Your task to perform on an android device: What's on my calendar tomorrow? Image 0: 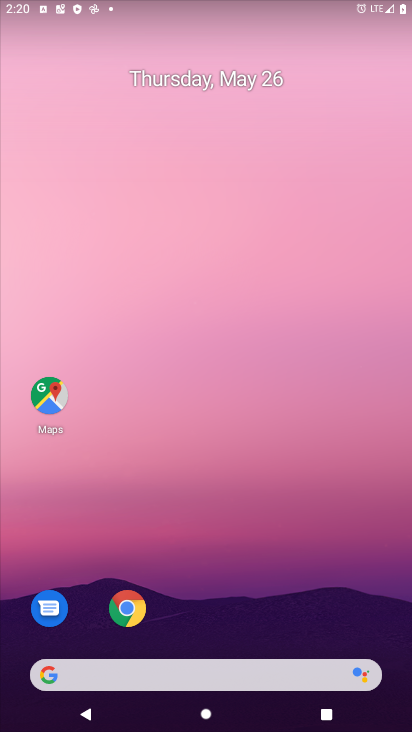
Step 0: click (311, 586)
Your task to perform on an android device: What's on my calendar tomorrow? Image 1: 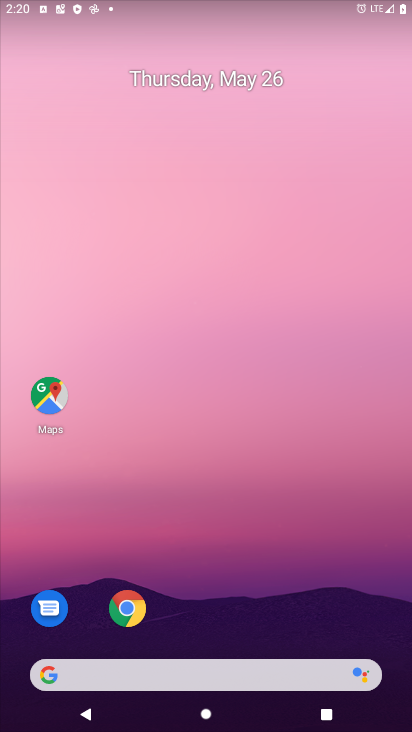
Step 1: drag from (311, 586) to (271, 304)
Your task to perform on an android device: What's on my calendar tomorrow? Image 2: 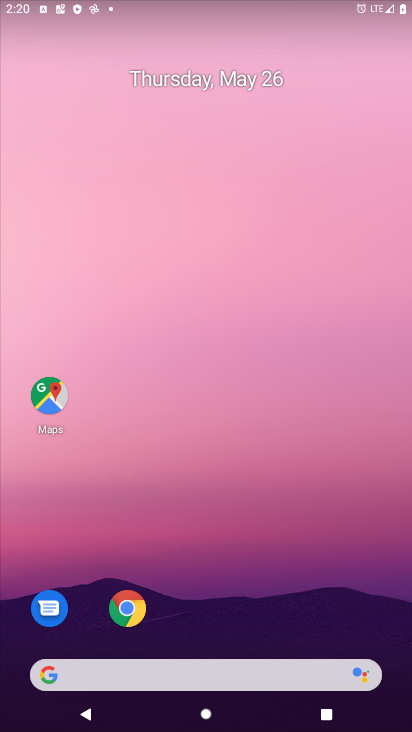
Step 2: drag from (332, 634) to (334, 160)
Your task to perform on an android device: What's on my calendar tomorrow? Image 3: 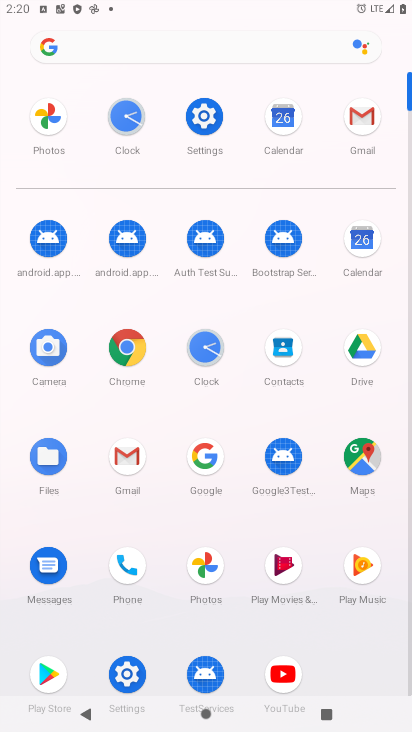
Step 3: click (363, 237)
Your task to perform on an android device: What's on my calendar tomorrow? Image 4: 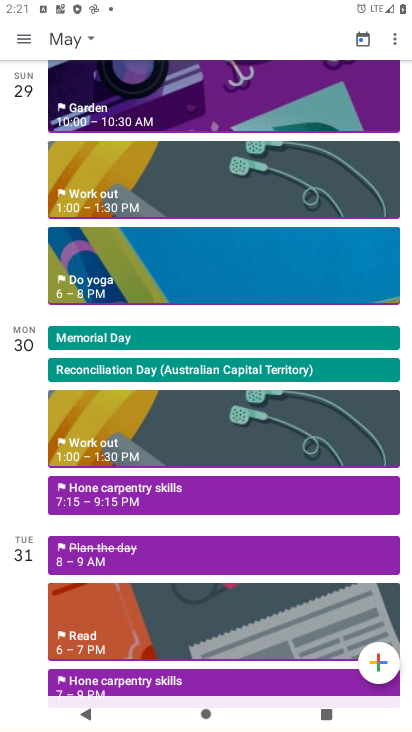
Step 4: click (26, 43)
Your task to perform on an android device: What's on my calendar tomorrow? Image 5: 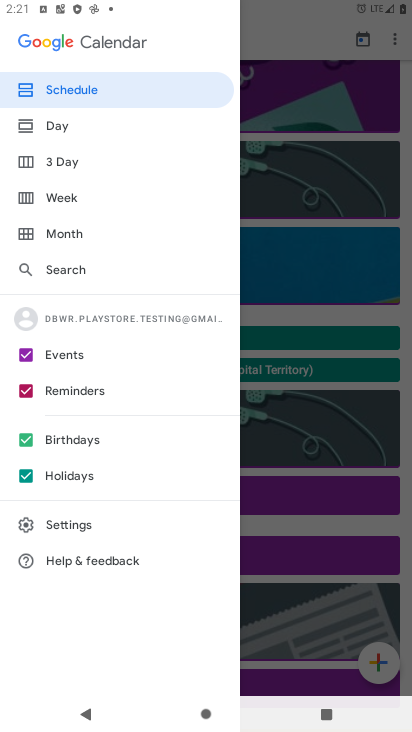
Step 5: click (64, 123)
Your task to perform on an android device: What's on my calendar tomorrow? Image 6: 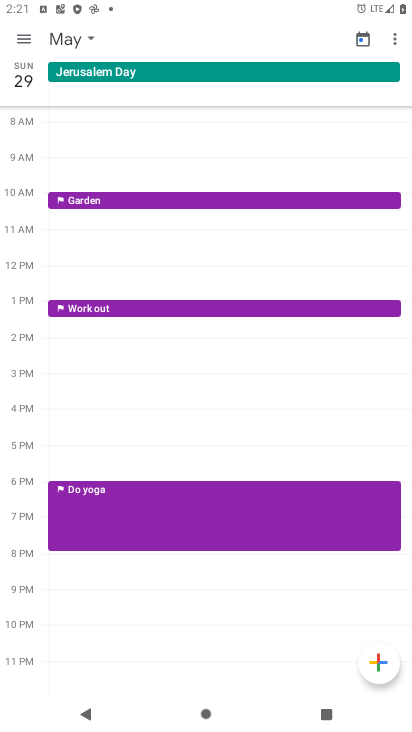
Step 6: click (88, 44)
Your task to perform on an android device: What's on my calendar tomorrow? Image 7: 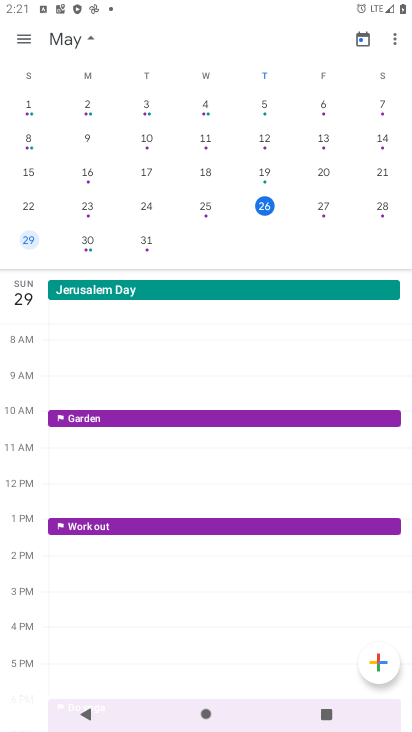
Step 7: click (318, 205)
Your task to perform on an android device: What's on my calendar tomorrow? Image 8: 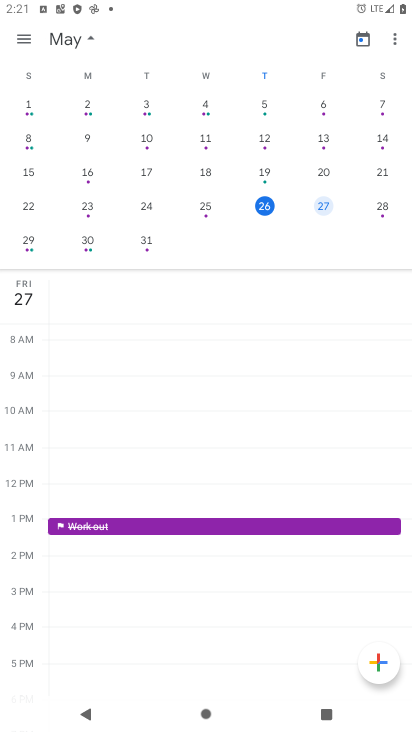
Step 8: task complete